Your task to perform on an android device: change the clock display to analog Image 0: 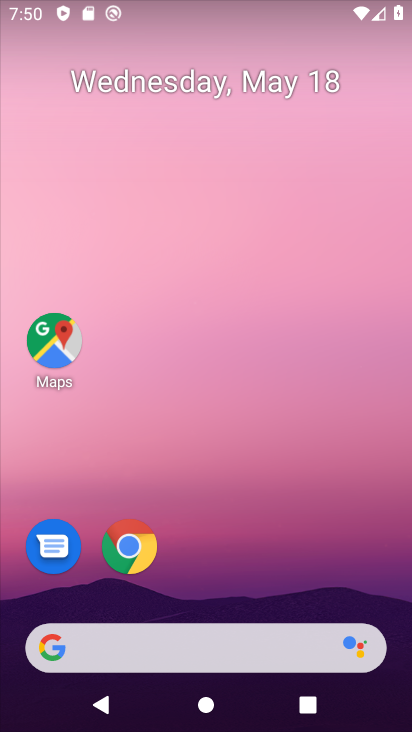
Step 0: drag from (204, 635) to (184, 246)
Your task to perform on an android device: change the clock display to analog Image 1: 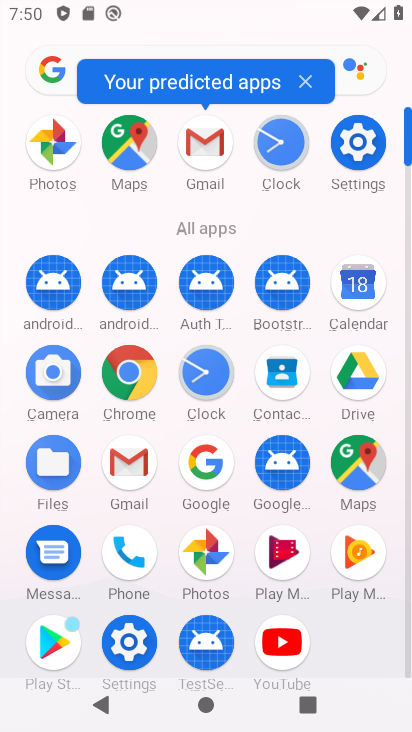
Step 1: click (294, 144)
Your task to perform on an android device: change the clock display to analog Image 2: 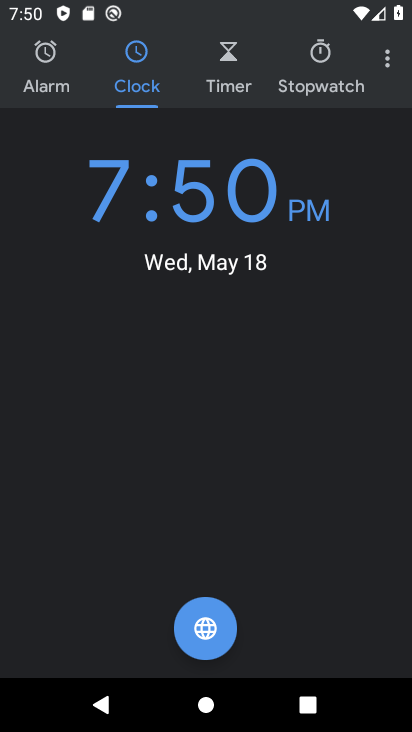
Step 2: click (382, 62)
Your task to perform on an android device: change the clock display to analog Image 3: 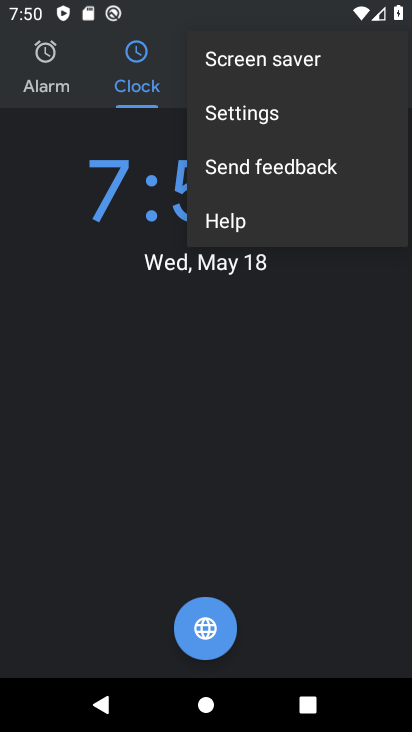
Step 3: click (329, 117)
Your task to perform on an android device: change the clock display to analog Image 4: 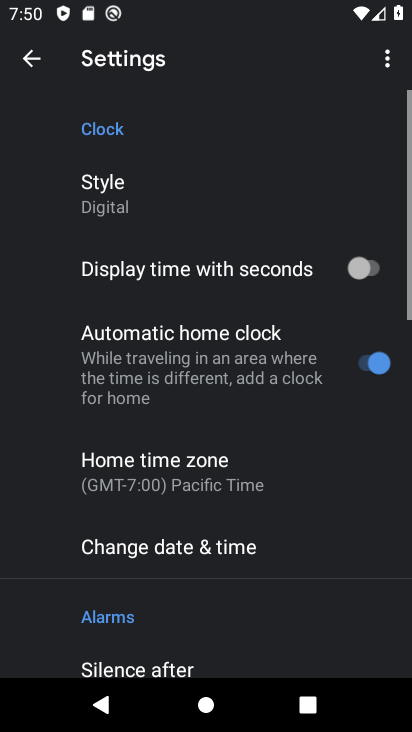
Step 4: click (205, 202)
Your task to perform on an android device: change the clock display to analog Image 5: 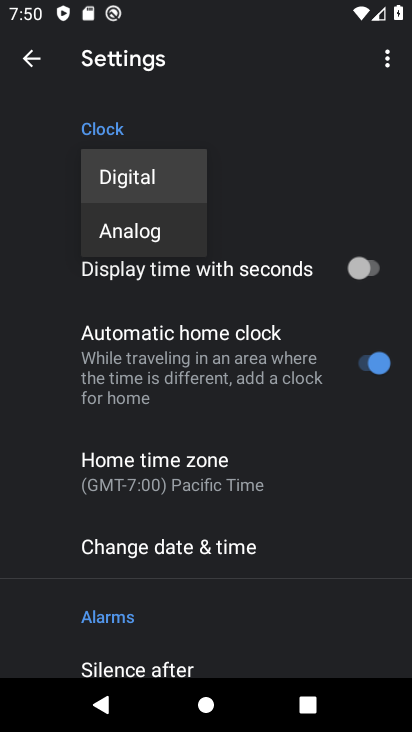
Step 5: click (148, 231)
Your task to perform on an android device: change the clock display to analog Image 6: 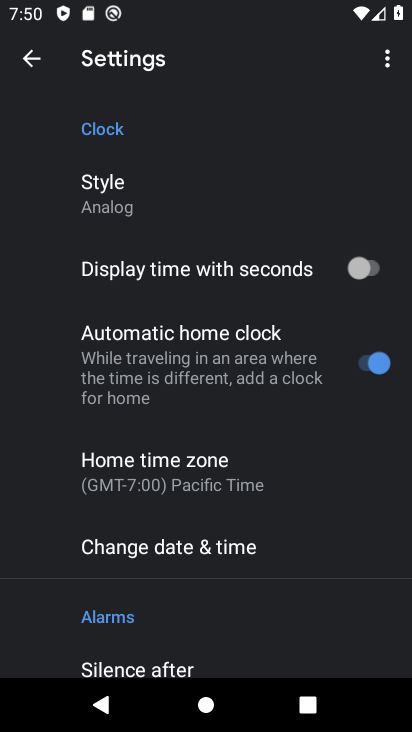
Step 6: task complete